Your task to perform on an android device: Open CNN.com Image 0: 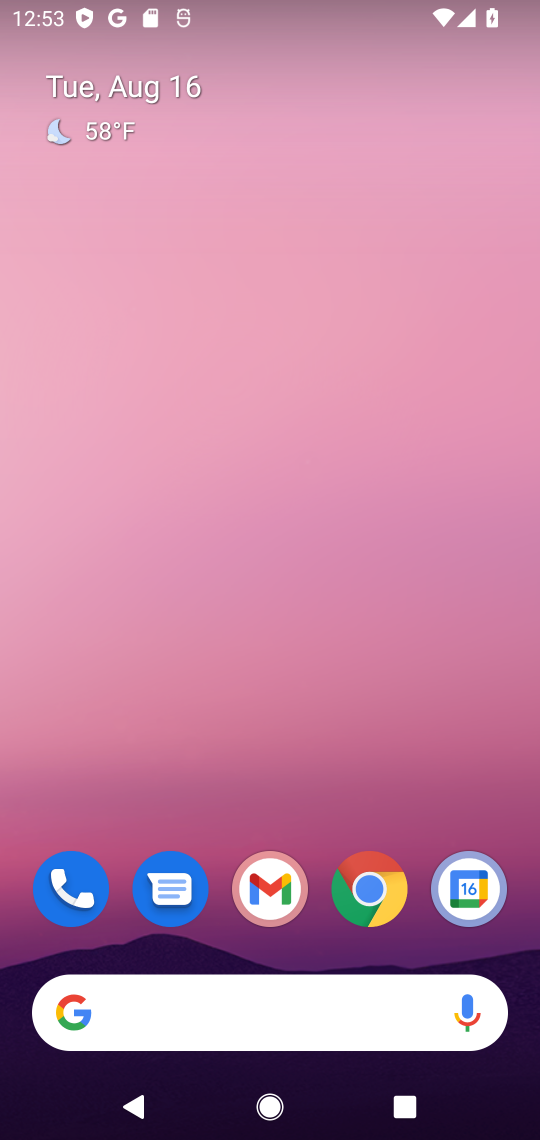
Step 0: drag from (315, 1059) to (362, 75)
Your task to perform on an android device: Open CNN.com Image 1: 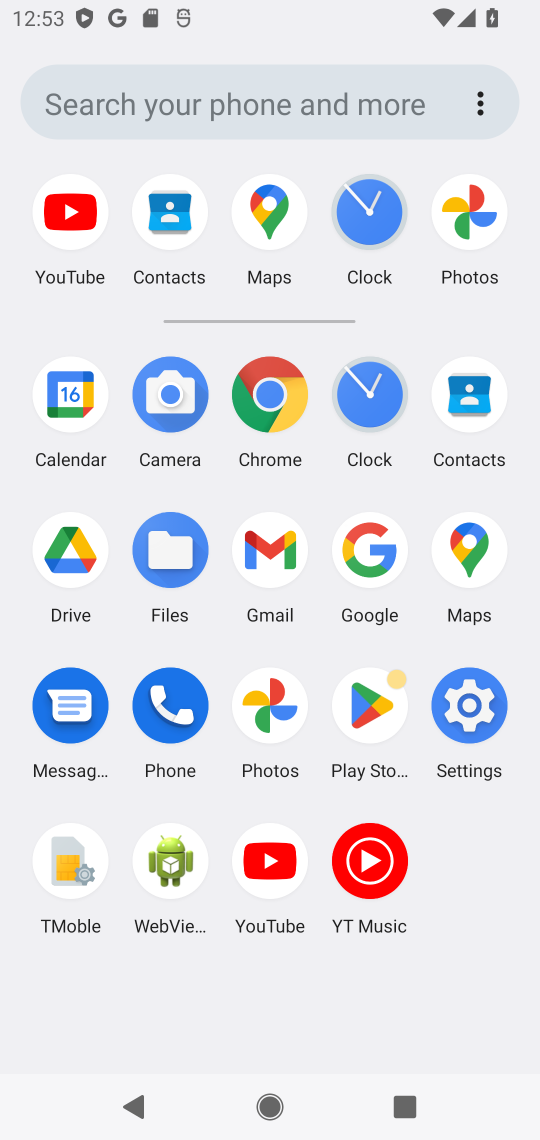
Step 1: click (284, 396)
Your task to perform on an android device: Open CNN.com Image 2: 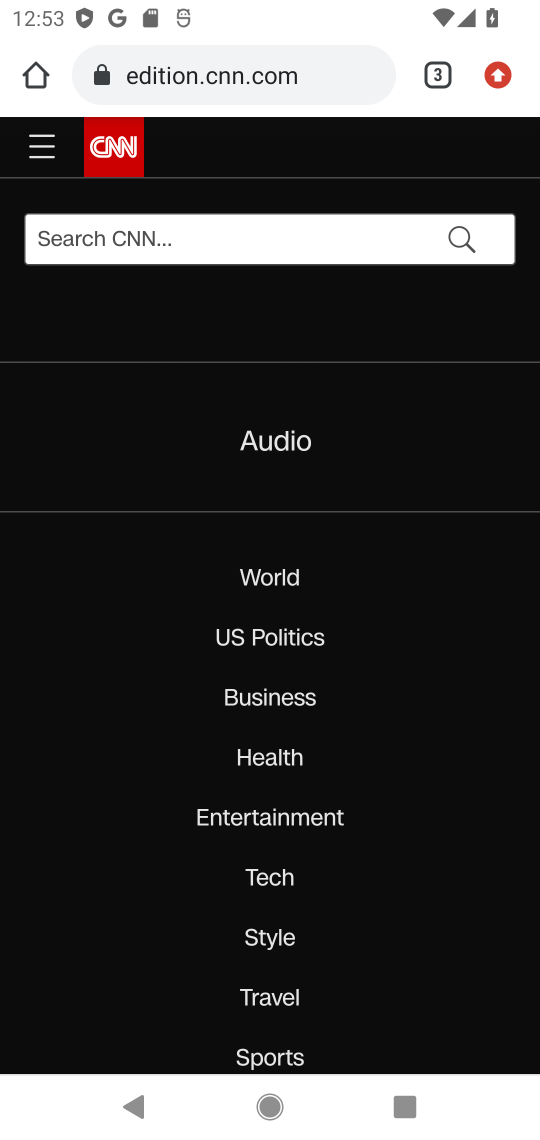
Step 2: click (314, 62)
Your task to perform on an android device: Open CNN.com Image 3: 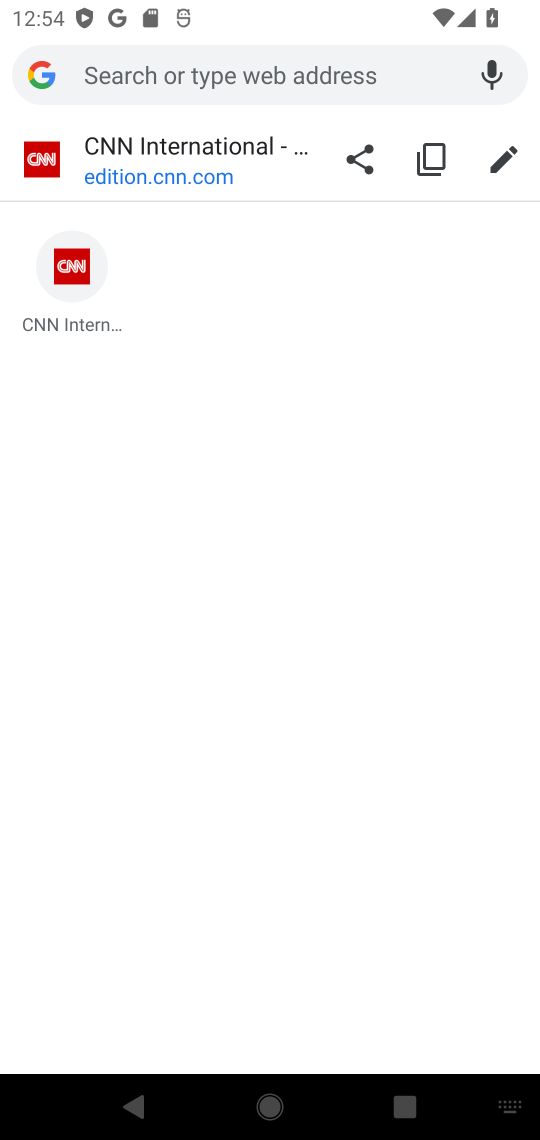
Step 3: type " CNN.com"
Your task to perform on an android device: Open CNN.com Image 4: 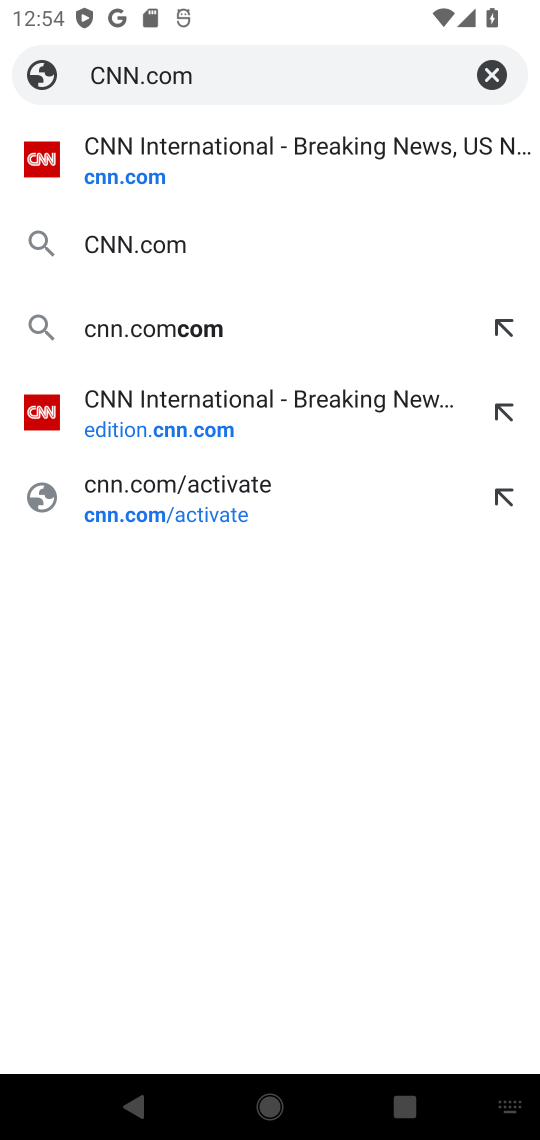
Step 4: click (68, 158)
Your task to perform on an android device: Open CNN.com Image 5: 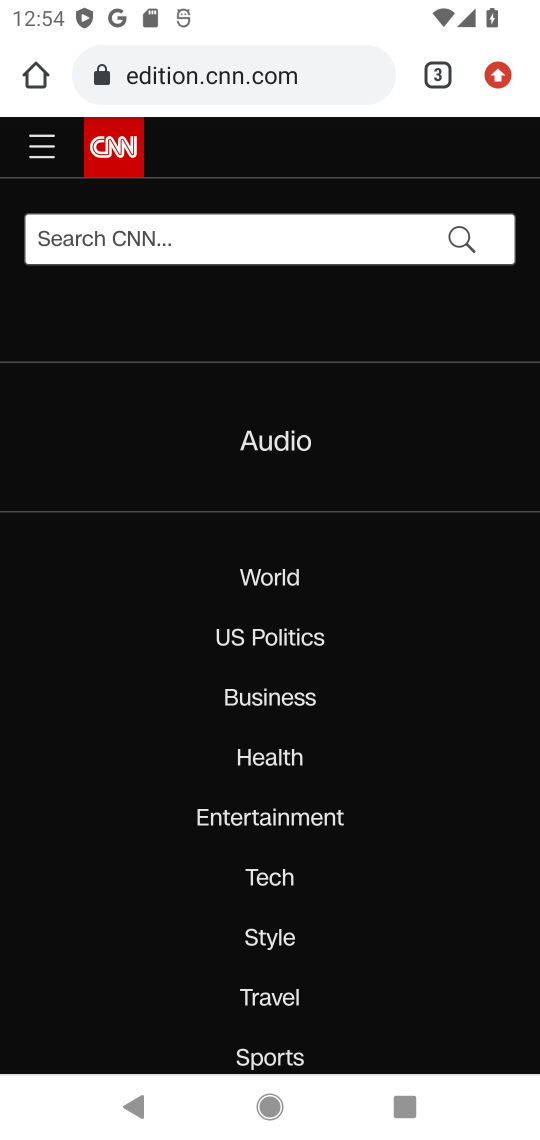
Step 5: task complete